Your task to perform on an android device: Is it going to rain tomorrow? Image 0: 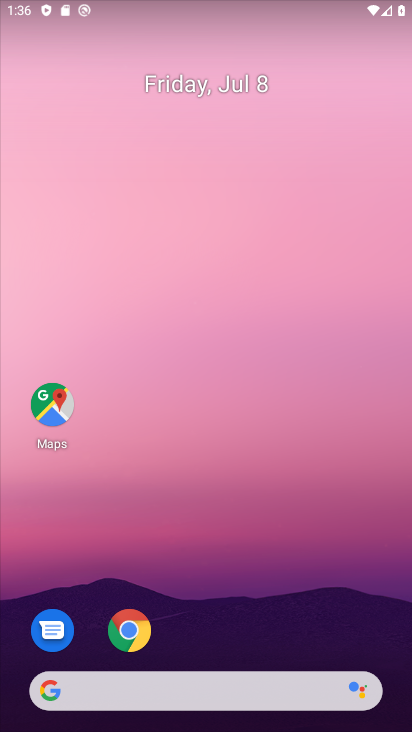
Step 0: drag from (228, 635) to (180, 171)
Your task to perform on an android device: Is it going to rain tomorrow? Image 1: 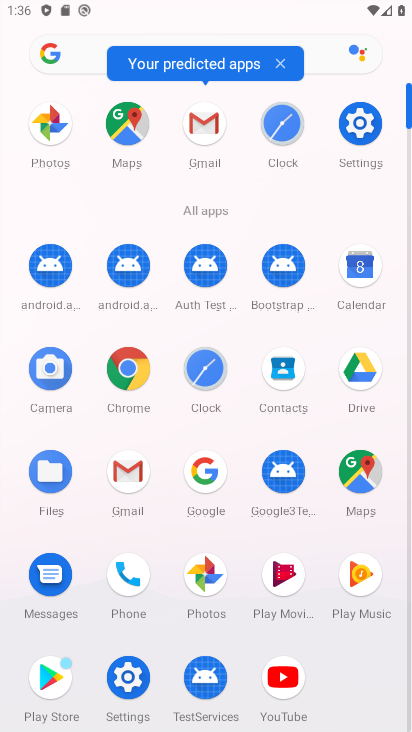
Step 1: press back button
Your task to perform on an android device: Is it going to rain tomorrow? Image 2: 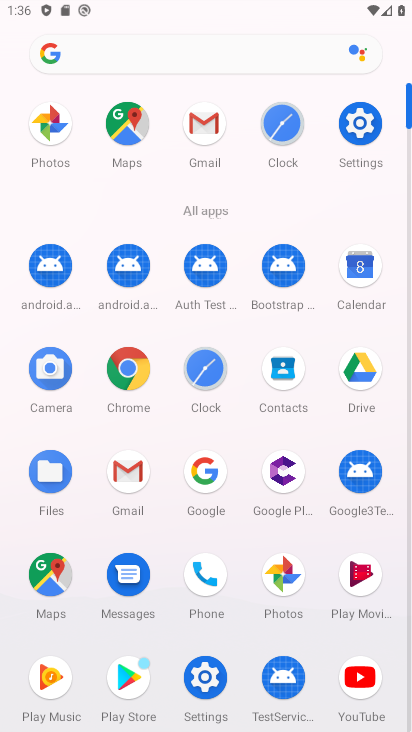
Step 2: press back button
Your task to perform on an android device: Is it going to rain tomorrow? Image 3: 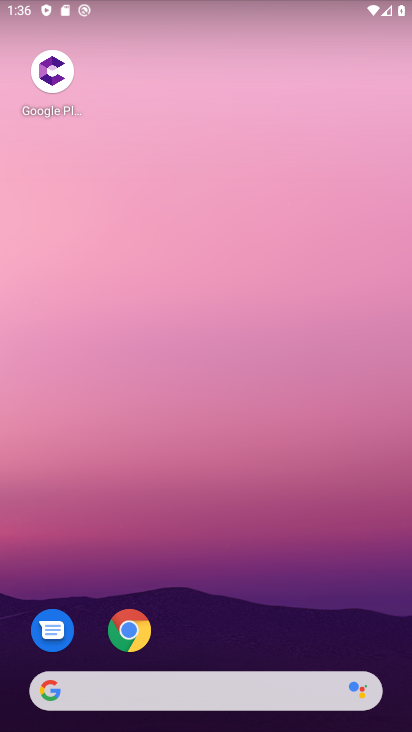
Step 3: click (182, 687)
Your task to perform on an android device: Is it going to rain tomorrow? Image 4: 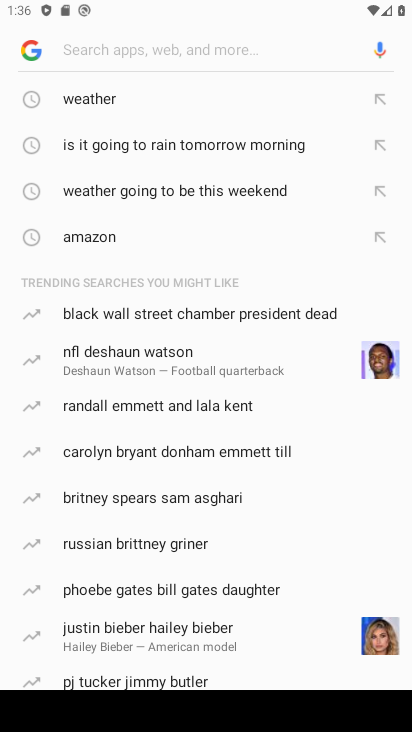
Step 4: click (137, 142)
Your task to perform on an android device: Is it going to rain tomorrow? Image 5: 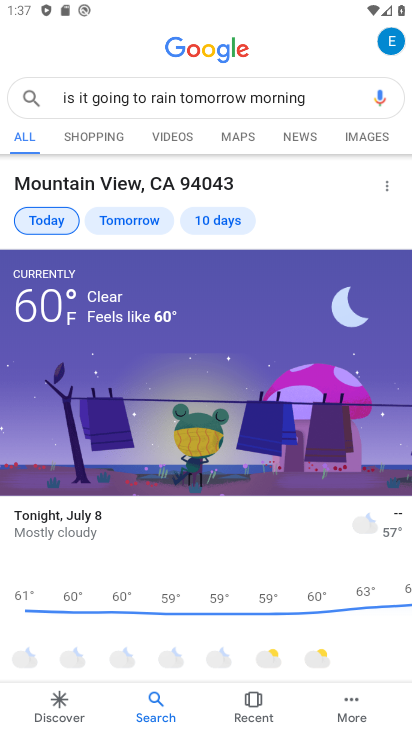
Step 5: click (123, 218)
Your task to perform on an android device: Is it going to rain tomorrow? Image 6: 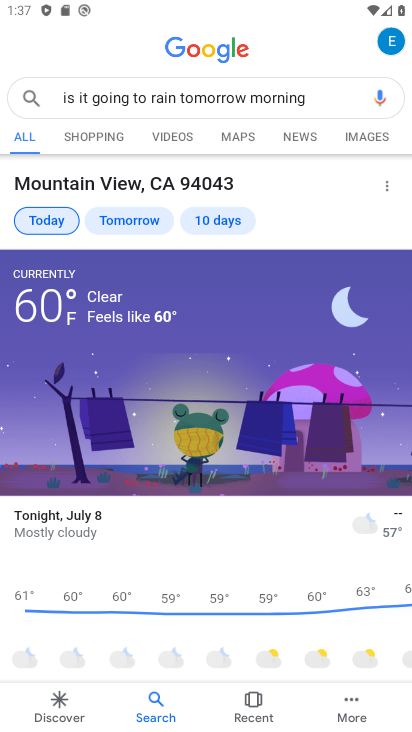
Step 6: click (123, 218)
Your task to perform on an android device: Is it going to rain tomorrow? Image 7: 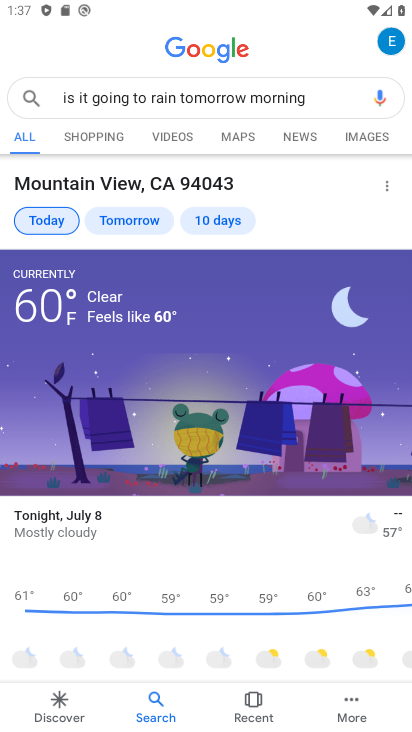
Step 7: click (123, 218)
Your task to perform on an android device: Is it going to rain tomorrow? Image 8: 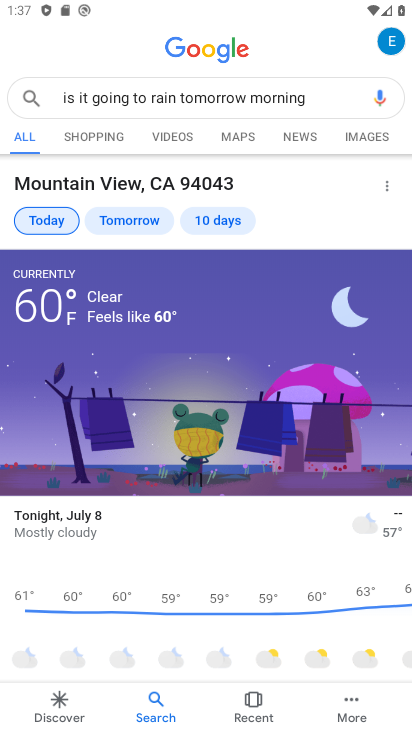
Step 8: click (137, 211)
Your task to perform on an android device: Is it going to rain tomorrow? Image 9: 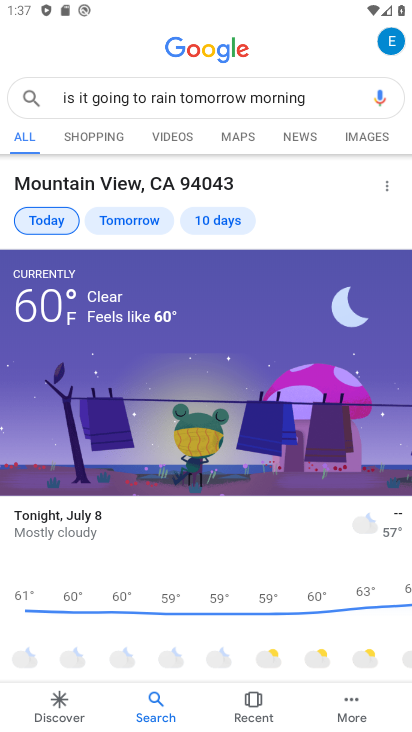
Step 9: click (138, 212)
Your task to perform on an android device: Is it going to rain tomorrow? Image 10: 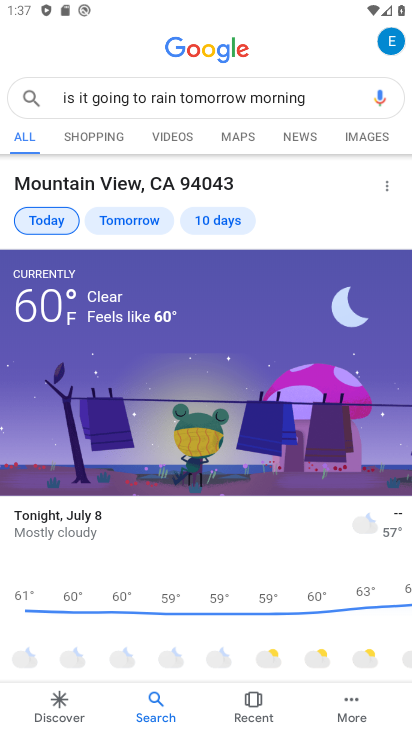
Step 10: click (139, 213)
Your task to perform on an android device: Is it going to rain tomorrow? Image 11: 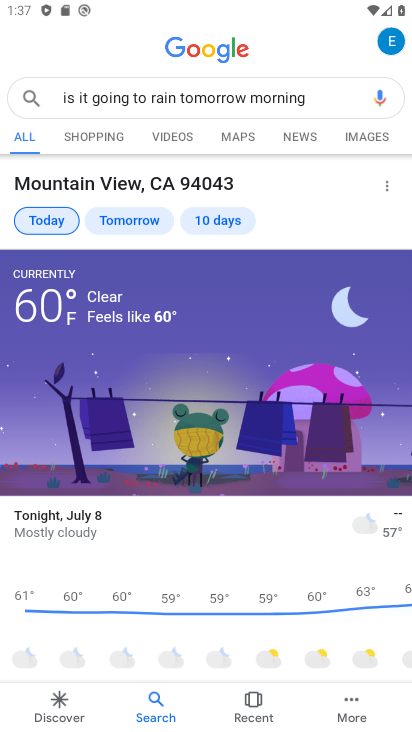
Step 11: click (141, 221)
Your task to perform on an android device: Is it going to rain tomorrow? Image 12: 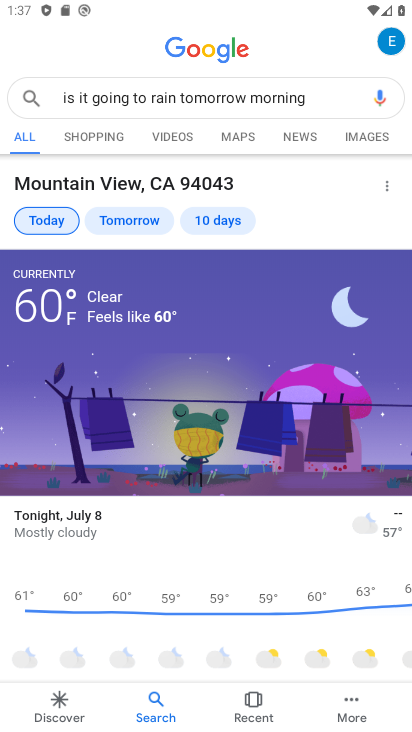
Step 12: click (197, 589)
Your task to perform on an android device: Is it going to rain tomorrow? Image 13: 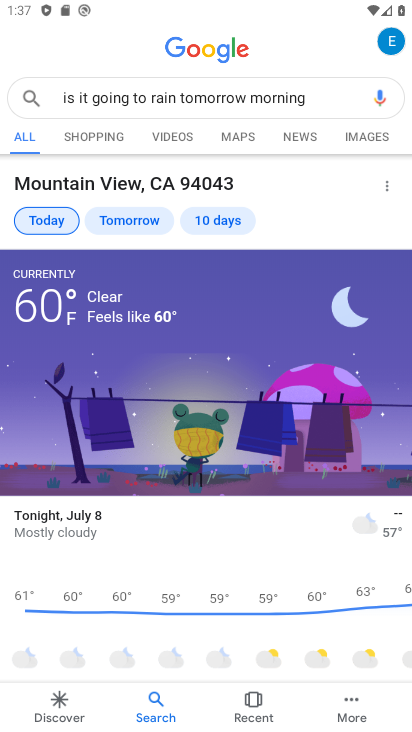
Step 13: click (179, 627)
Your task to perform on an android device: Is it going to rain tomorrow? Image 14: 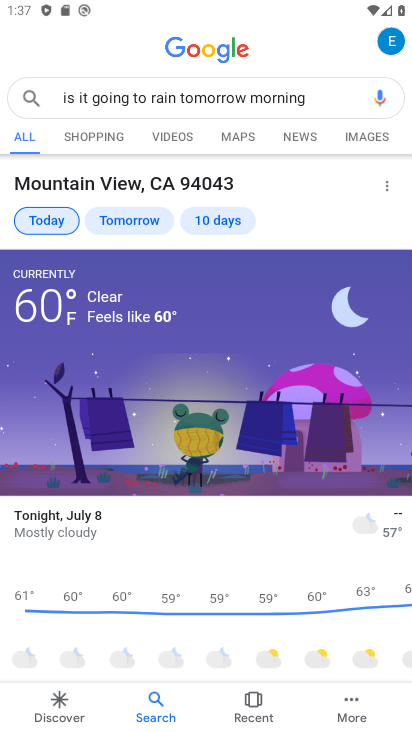
Step 14: click (211, 648)
Your task to perform on an android device: Is it going to rain tomorrow? Image 15: 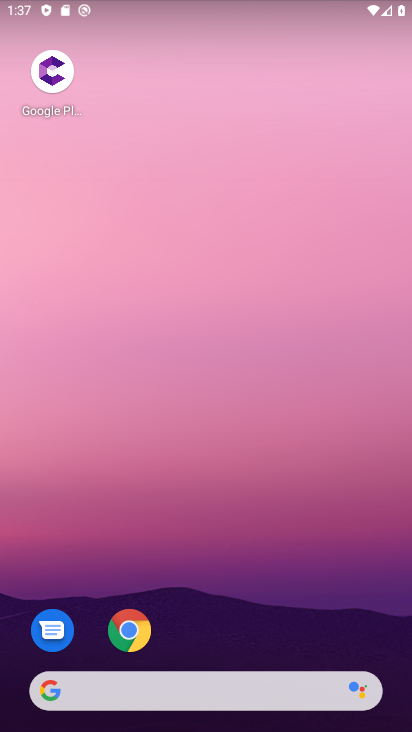
Step 15: task complete